Your task to perform on an android device: Show me recent news Image 0: 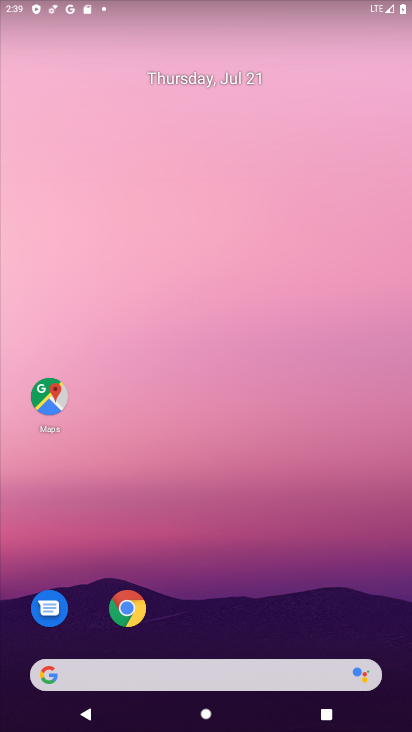
Step 0: click (210, 677)
Your task to perform on an android device: Show me recent news Image 1: 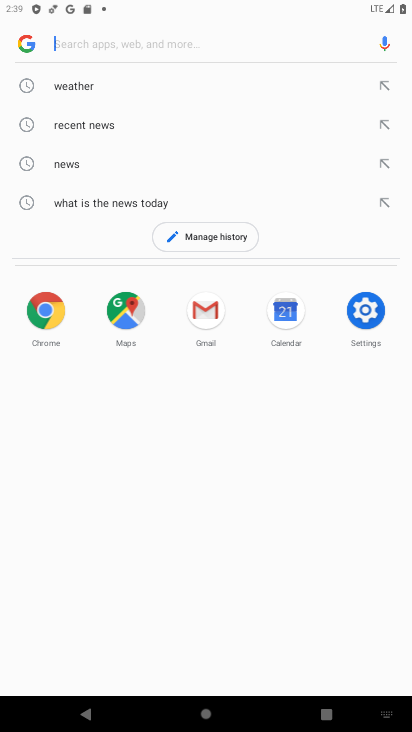
Step 1: click (83, 121)
Your task to perform on an android device: Show me recent news Image 2: 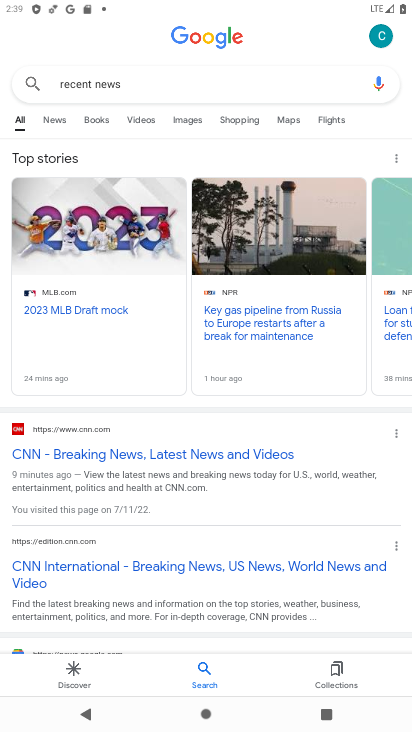
Step 2: task complete